Your task to perform on an android device: What is the recent news? Image 0: 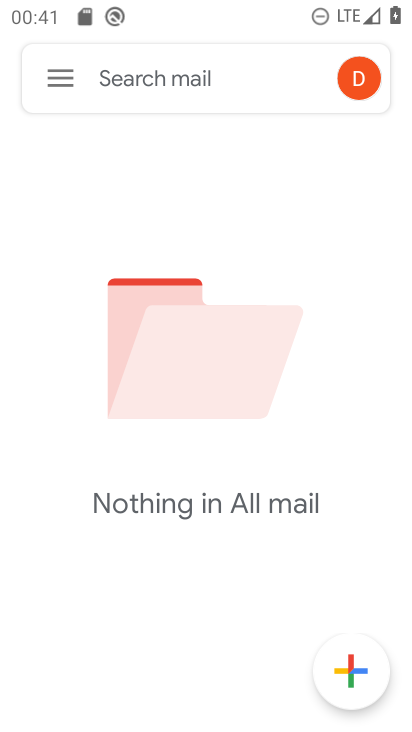
Step 0: press home button
Your task to perform on an android device: What is the recent news? Image 1: 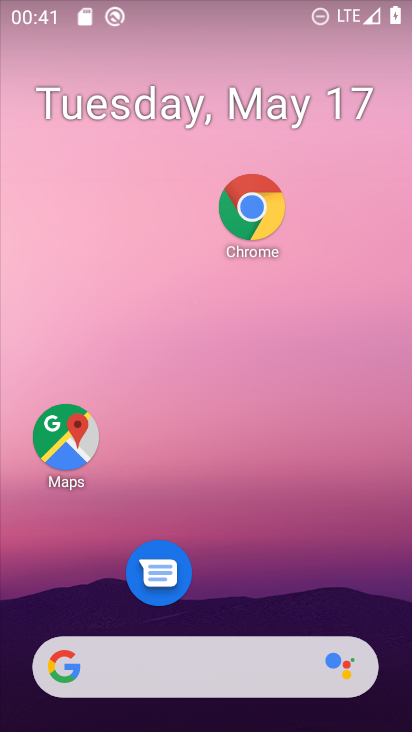
Step 1: type "what is recent news"
Your task to perform on an android device: What is the recent news? Image 2: 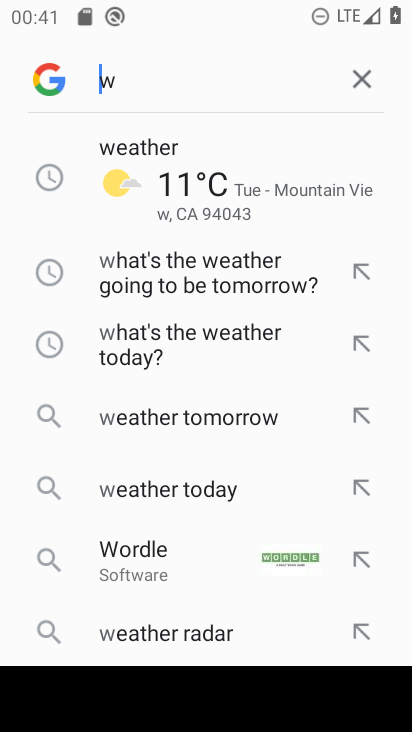
Step 2: click (365, 83)
Your task to perform on an android device: What is the recent news? Image 3: 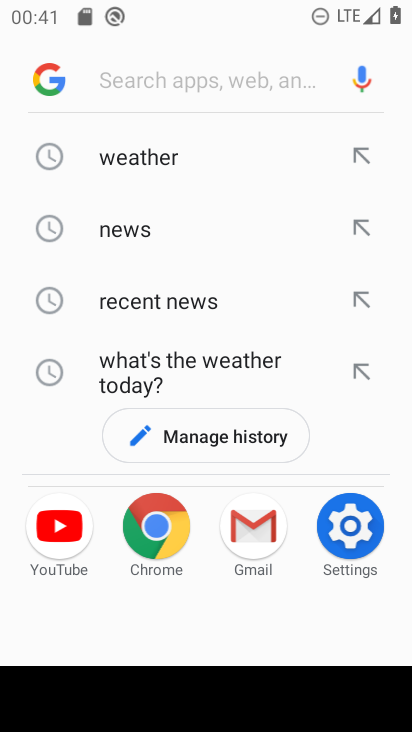
Step 3: press home button
Your task to perform on an android device: What is the recent news? Image 4: 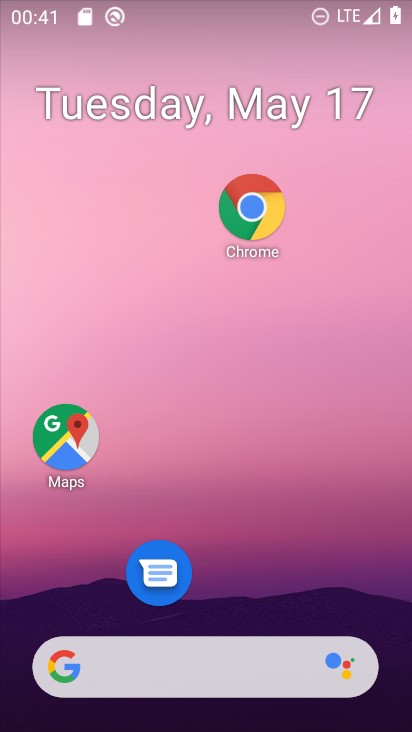
Step 4: drag from (212, 625) to (211, 2)
Your task to perform on an android device: What is the recent news? Image 5: 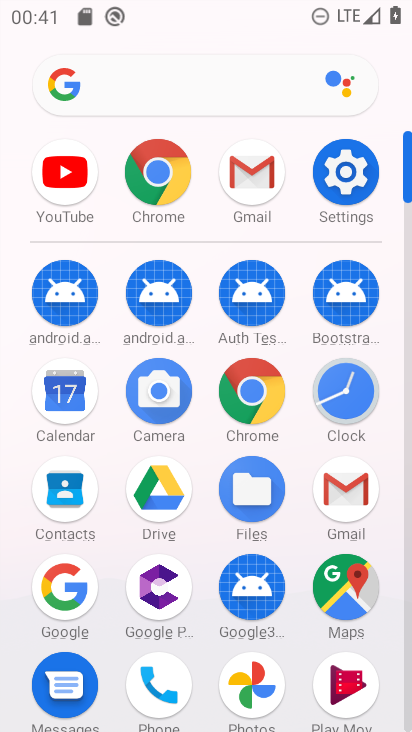
Step 5: click (254, 383)
Your task to perform on an android device: What is the recent news? Image 6: 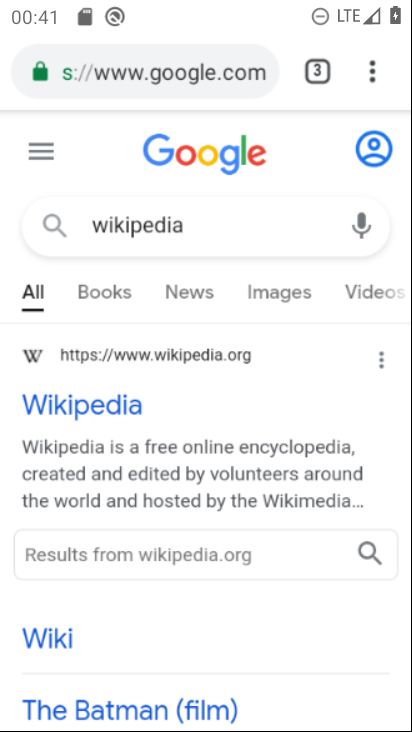
Step 6: click (217, 57)
Your task to perform on an android device: What is the recent news? Image 7: 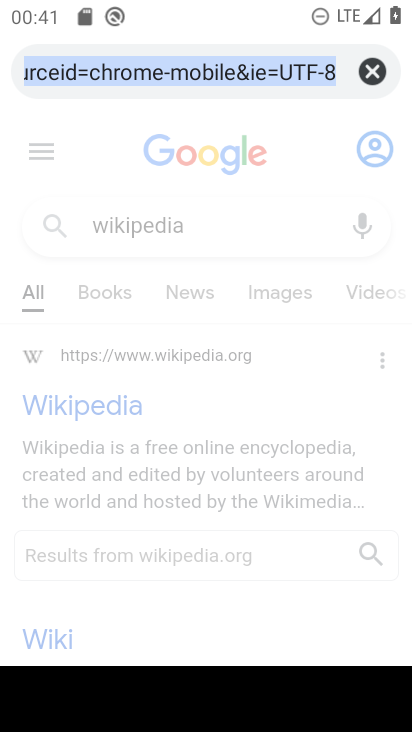
Step 7: click (374, 72)
Your task to perform on an android device: What is the recent news? Image 8: 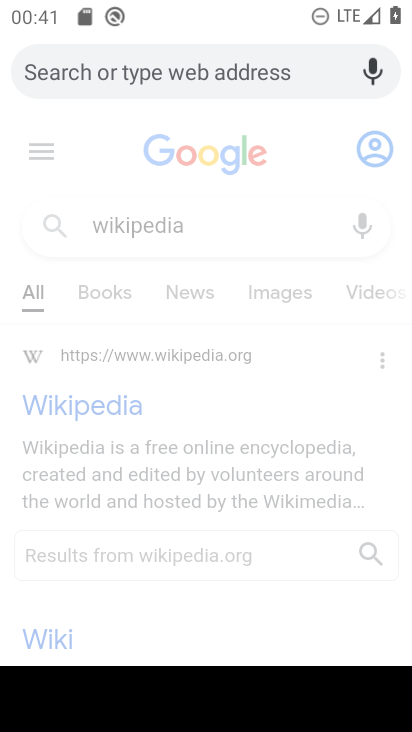
Step 8: type "recent news"
Your task to perform on an android device: What is the recent news? Image 9: 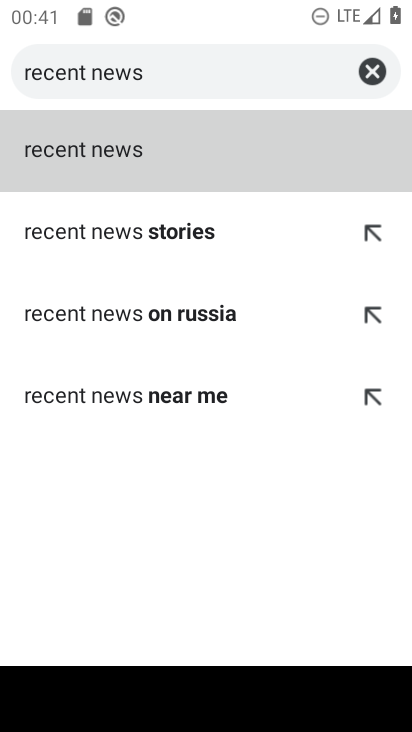
Step 9: click (168, 134)
Your task to perform on an android device: What is the recent news? Image 10: 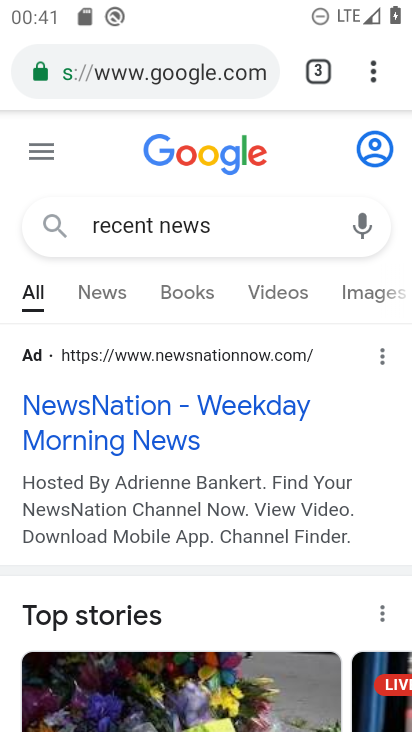
Step 10: task complete